Your task to perform on an android device: Open calendar and show me the fourth week of next month Image 0: 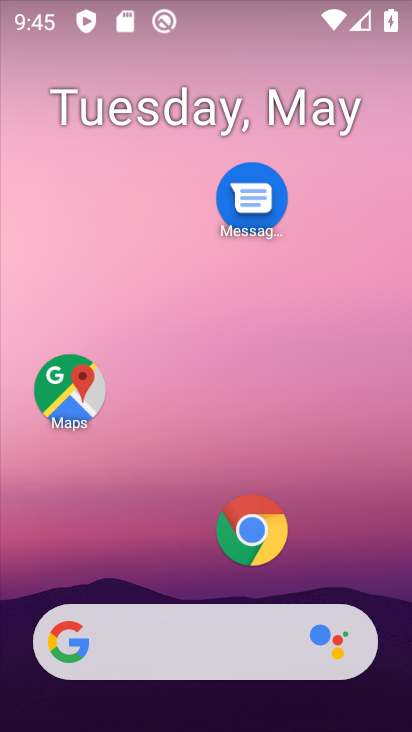
Step 0: drag from (208, 589) to (190, 129)
Your task to perform on an android device: Open calendar and show me the fourth week of next month Image 1: 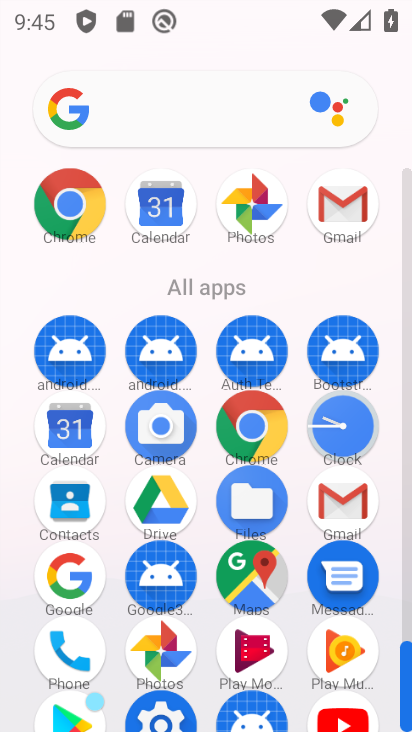
Step 1: click (56, 435)
Your task to perform on an android device: Open calendar and show me the fourth week of next month Image 2: 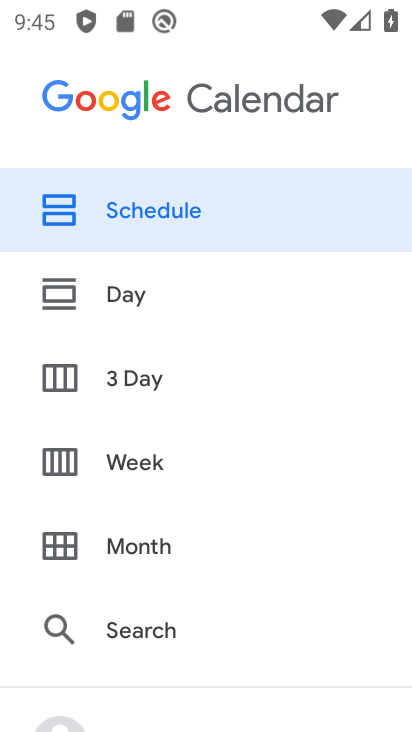
Step 2: click (162, 473)
Your task to perform on an android device: Open calendar and show me the fourth week of next month Image 3: 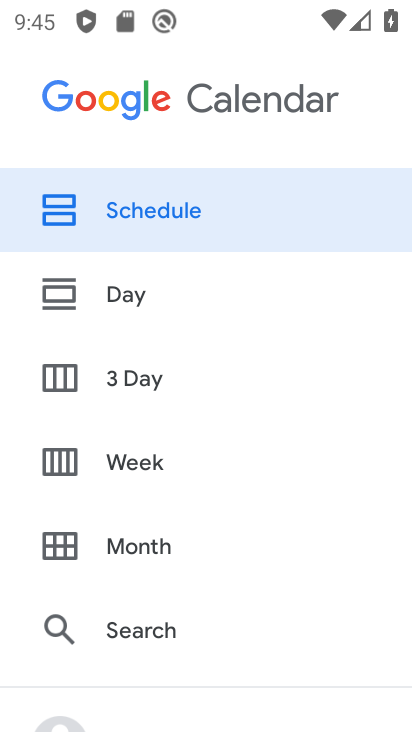
Step 3: click (120, 463)
Your task to perform on an android device: Open calendar and show me the fourth week of next month Image 4: 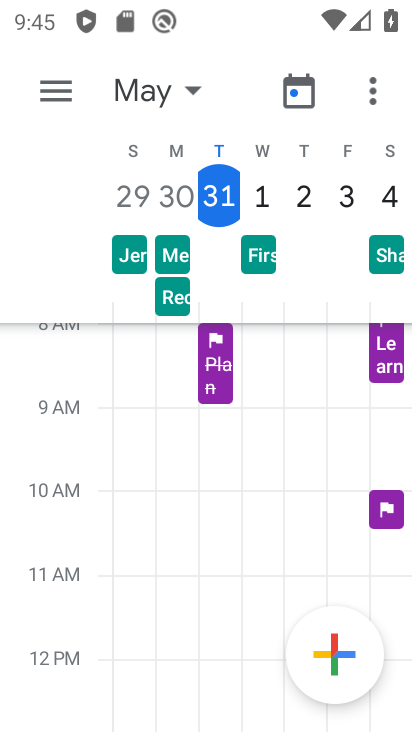
Step 4: click (133, 89)
Your task to perform on an android device: Open calendar and show me the fourth week of next month Image 5: 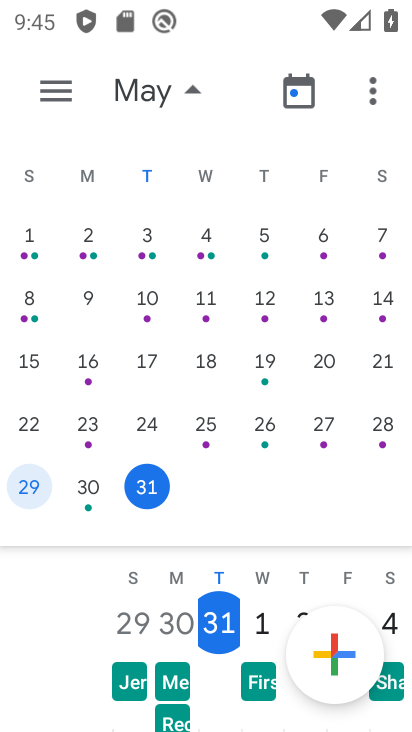
Step 5: drag from (346, 275) to (0, 243)
Your task to perform on an android device: Open calendar and show me the fourth week of next month Image 6: 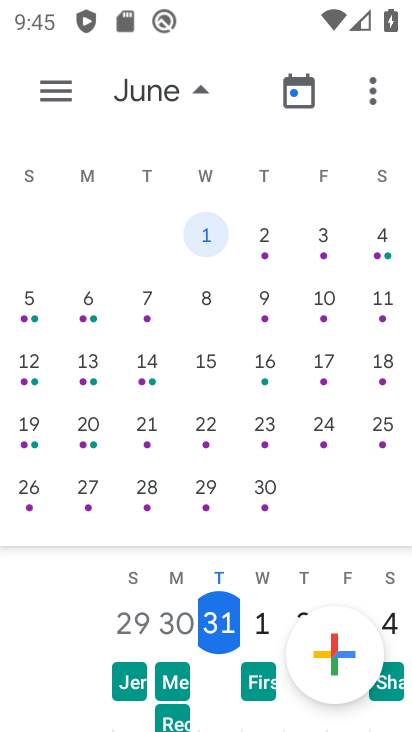
Step 6: click (34, 494)
Your task to perform on an android device: Open calendar and show me the fourth week of next month Image 7: 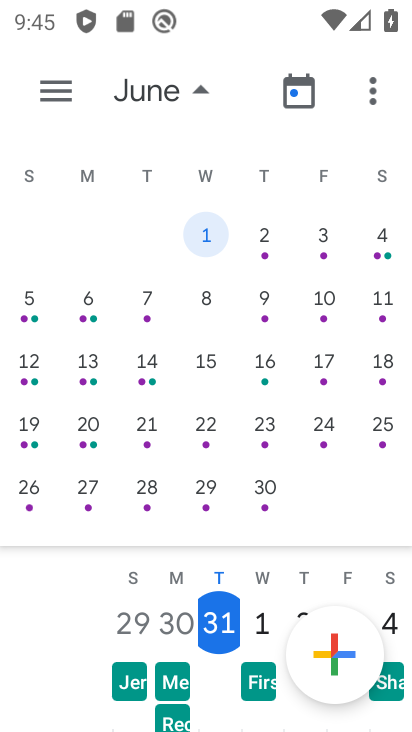
Step 7: click (39, 494)
Your task to perform on an android device: Open calendar and show me the fourth week of next month Image 8: 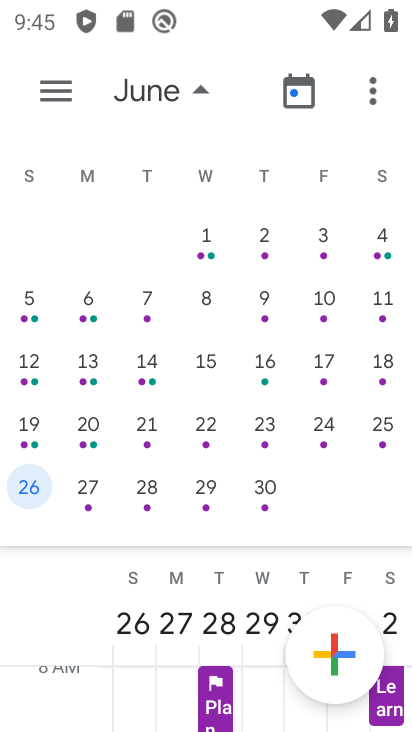
Step 8: drag from (149, 623) to (234, 322)
Your task to perform on an android device: Open calendar and show me the fourth week of next month Image 9: 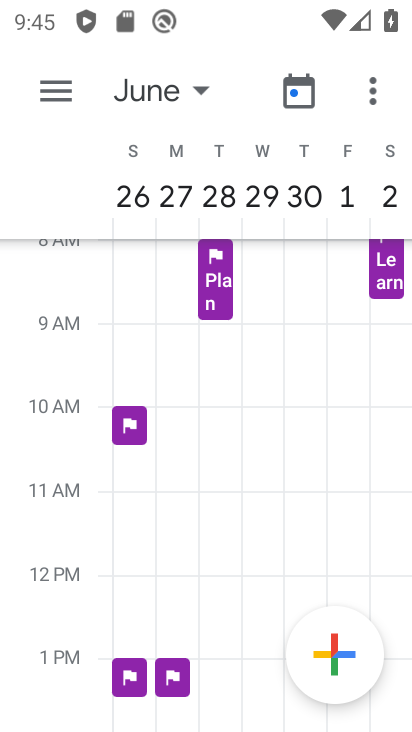
Step 9: drag from (197, 530) to (266, 210)
Your task to perform on an android device: Open calendar and show me the fourth week of next month Image 10: 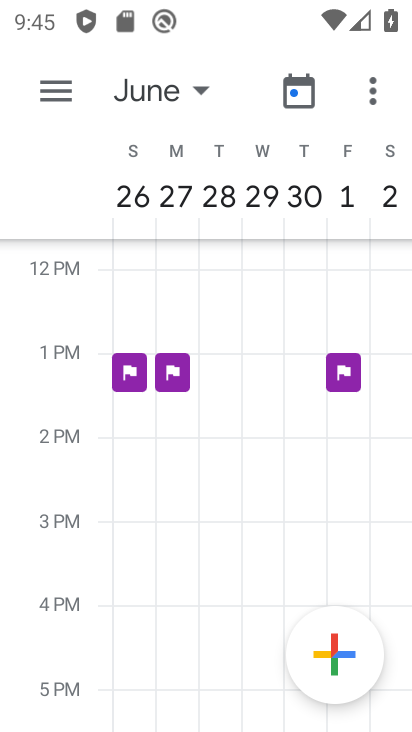
Step 10: drag from (189, 424) to (220, 254)
Your task to perform on an android device: Open calendar and show me the fourth week of next month Image 11: 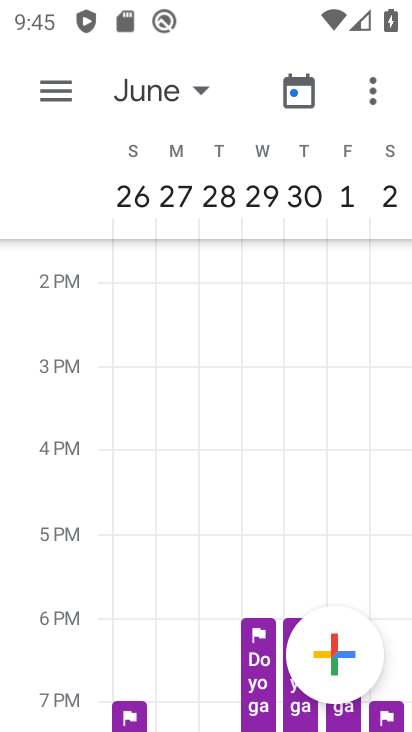
Step 11: click (163, 99)
Your task to perform on an android device: Open calendar and show me the fourth week of next month Image 12: 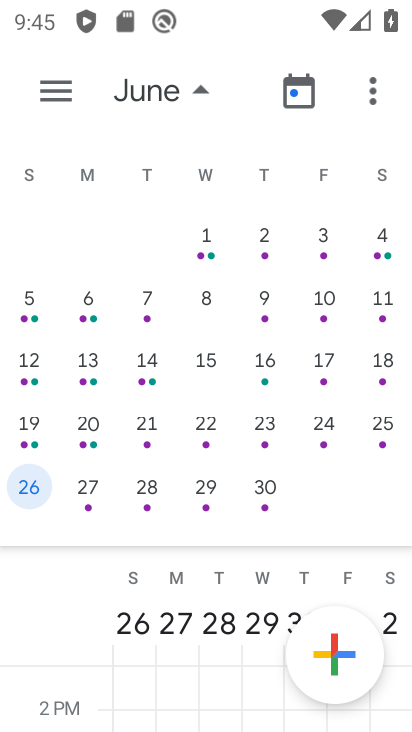
Step 12: drag from (330, 342) to (2, 340)
Your task to perform on an android device: Open calendar and show me the fourth week of next month Image 13: 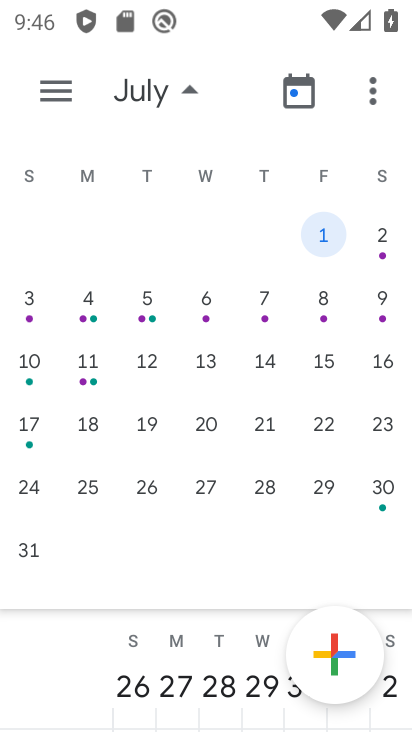
Step 13: click (30, 491)
Your task to perform on an android device: Open calendar and show me the fourth week of next month Image 14: 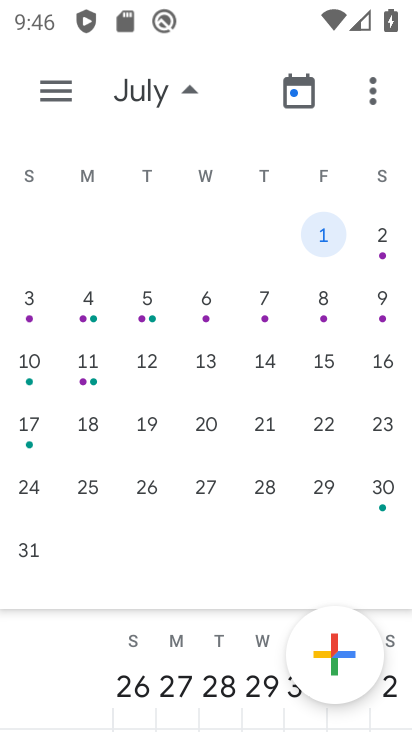
Step 14: click (32, 493)
Your task to perform on an android device: Open calendar and show me the fourth week of next month Image 15: 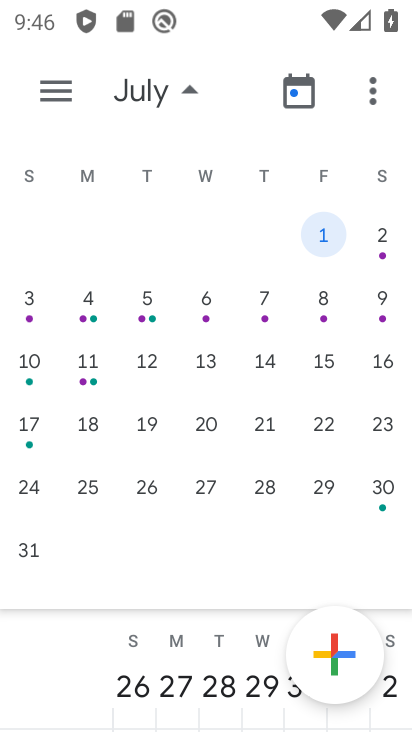
Step 15: click (38, 485)
Your task to perform on an android device: Open calendar and show me the fourth week of next month Image 16: 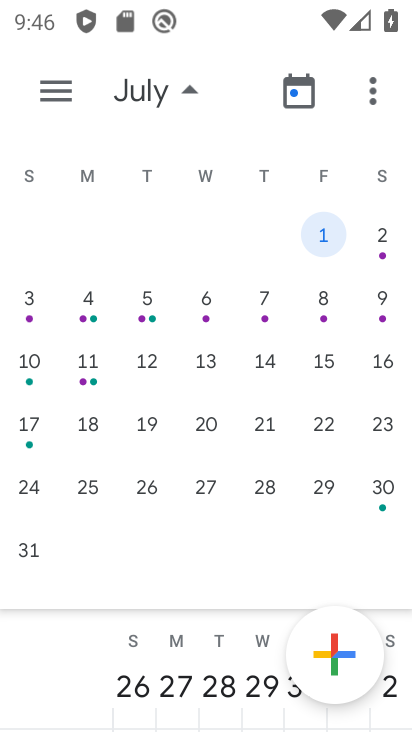
Step 16: click (38, 485)
Your task to perform on an android device: Open calendar and show me the fourth week of next month Image 17: 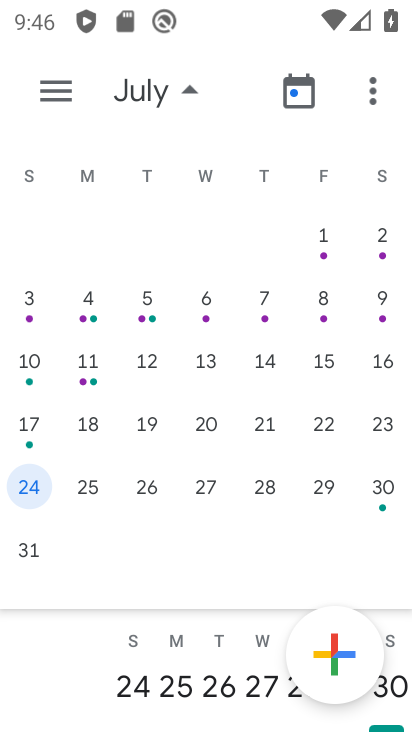
Step 17: task complete